Your task to perform on an android device: turn off improve location accuracy Image 0: 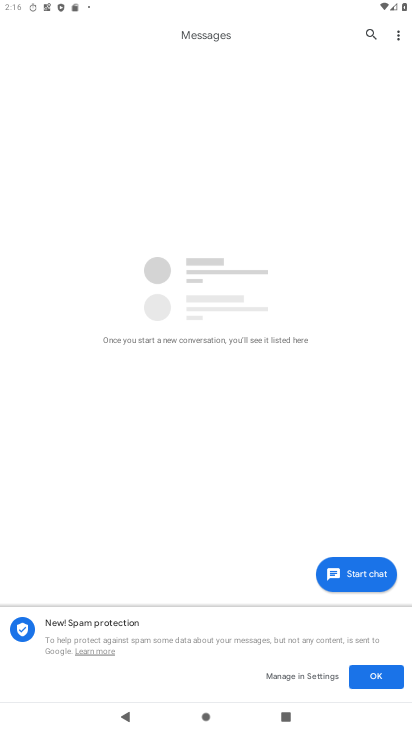
Step 0: press home button
Your task to perform on an android device: turn off improve location accuracy Image 1: 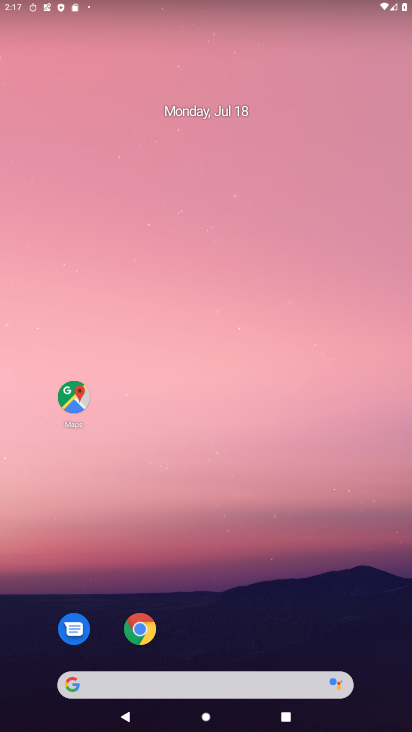
Step 1: drag from (224, 637) to (273, 149)
Your task to perform on an android device: turn off improve location accuracy Image 2: 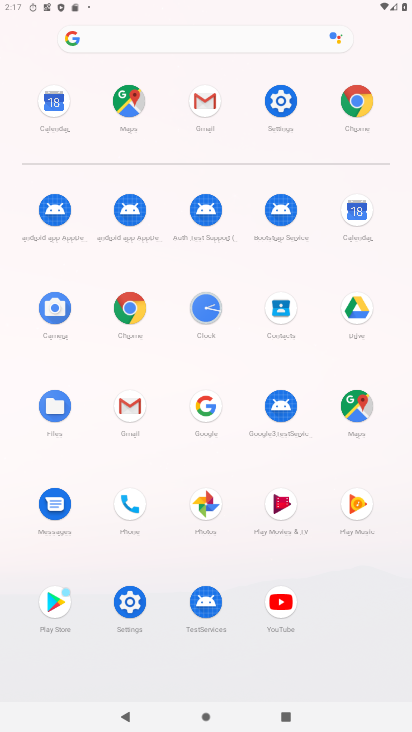
Step 2: click (282, 88)
Your task to perform on an android device: turn off improve location accuracy Image 3: 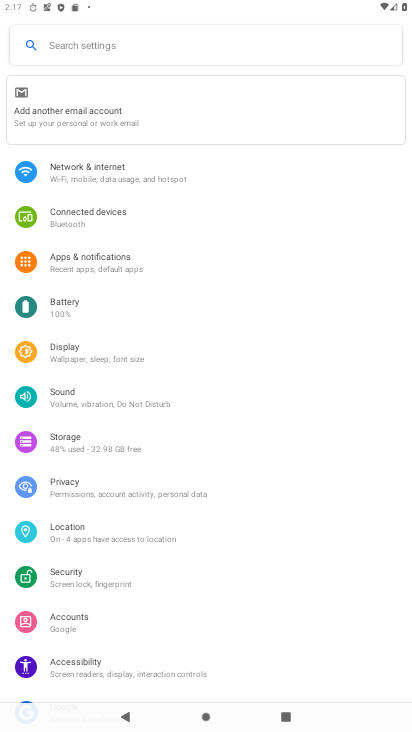
Step 3: click (102, 524)
Your task to perform on an android device: turn off improve location accuracy Image 4: 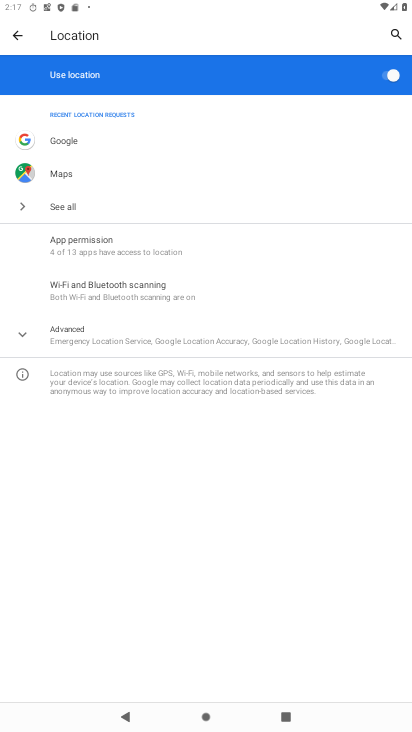
Step 4: click (39, 335)
Your task to perform on an android device: turn off improve location accuracy Image 5: 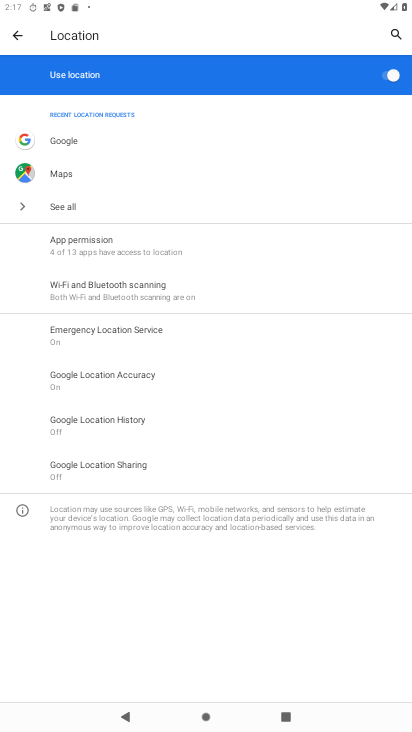
Step 5: click (81, 380)
Your task to perform on an android device: turn off improve location accuracy Image 6: 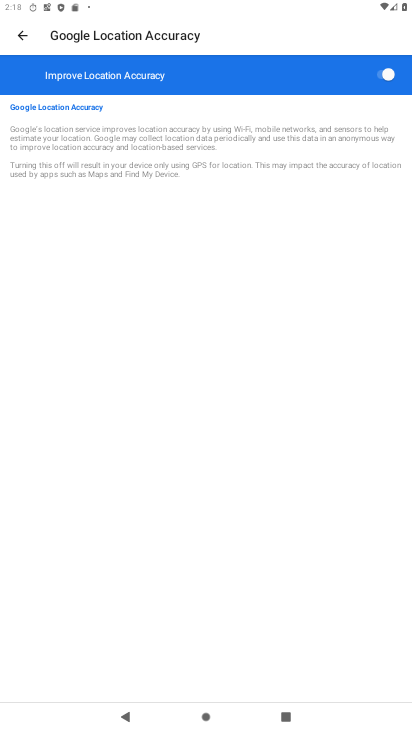
Step 6: click (379, 75)
Your task to perform on an android device: turn off improve location accuracy Image 7: 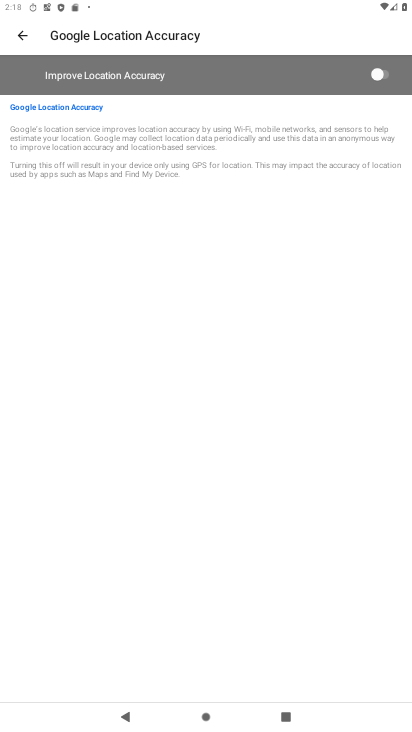
Step 7: task complete